Your task to perform on an android device: When is my next appointment? Image 0: 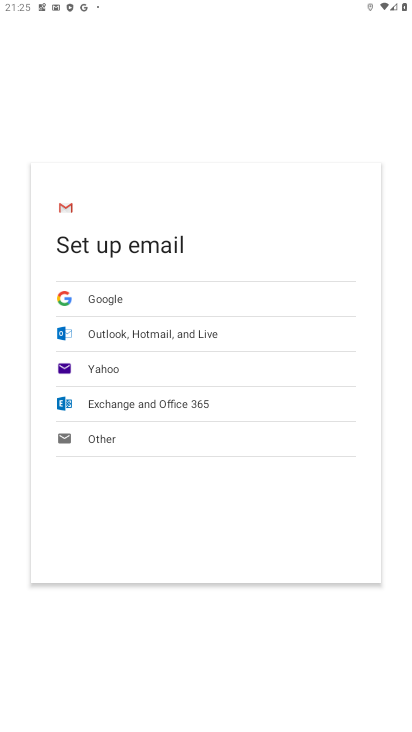
Step 0: press home button
Your task to perform on an android device: When is my next appointment? Image 1: 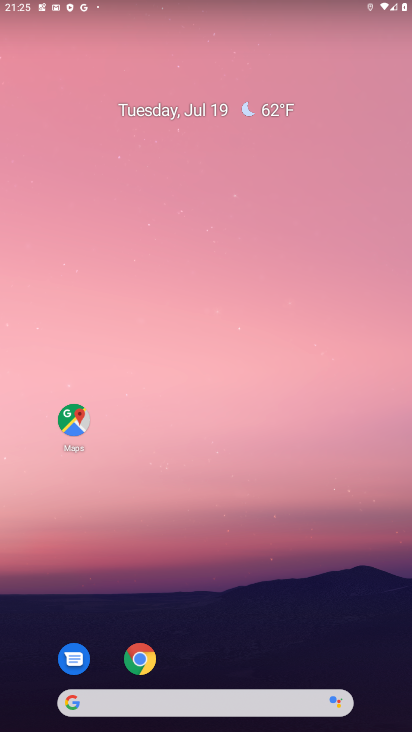
Step 1: drag from (254, 654) to (252, 71)
Your task to perform on an android device: When is my next appointment? Image 2: 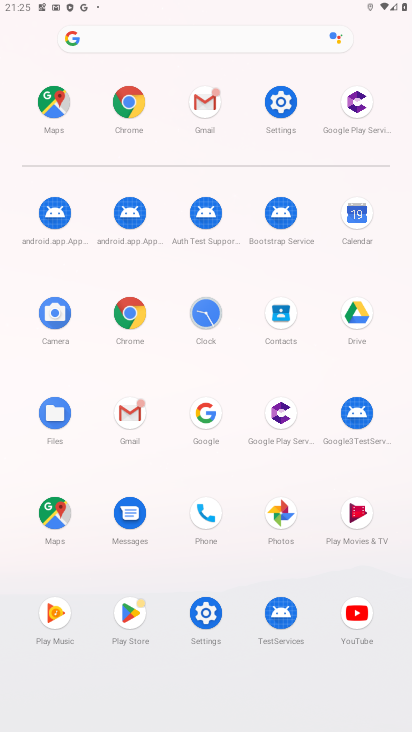
Step 2: click (350, 204)
Your task to perform on an android device: When is my next appointment? Image 3: 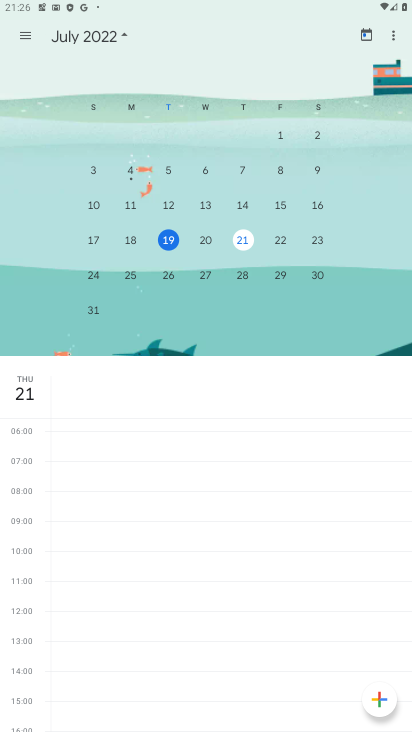
Step 3: click (169, 248)
Your task to perform on an android device: When is my next appointment? Image 4: 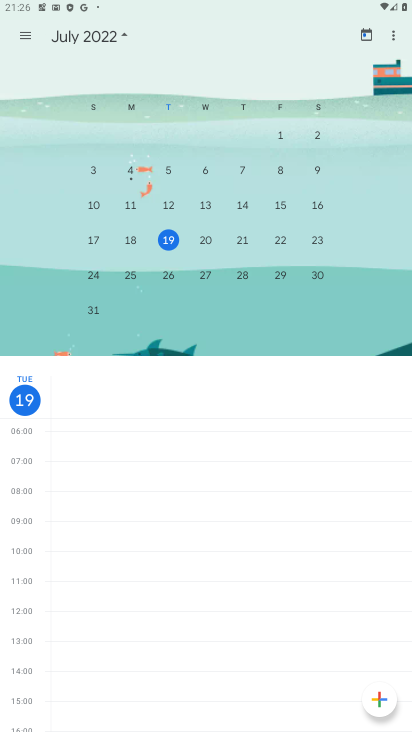
Step 4: click (116, 43)
Your task to perform on an android device: When is my next appointment? Image 5: 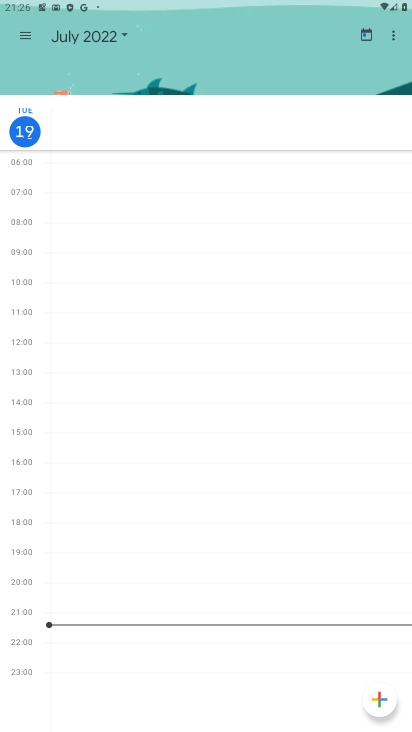
Step 5: click (124, 30)
Your task to perform on an android device: When is my next appointment? Image 6: 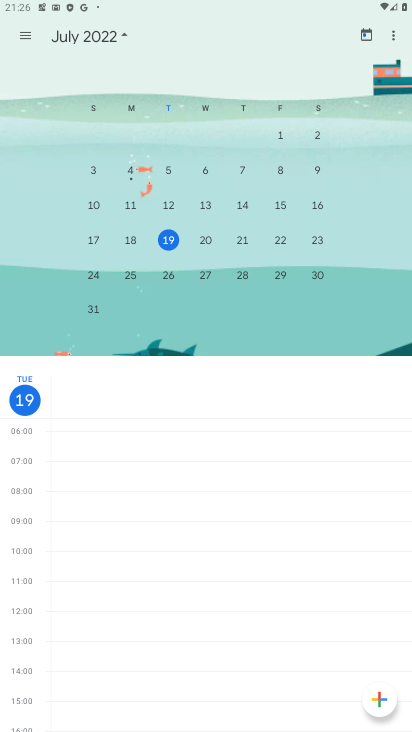
Step 6: click (205, 240)
Your task to perform on an android device: When is my next appointment? Image 7: 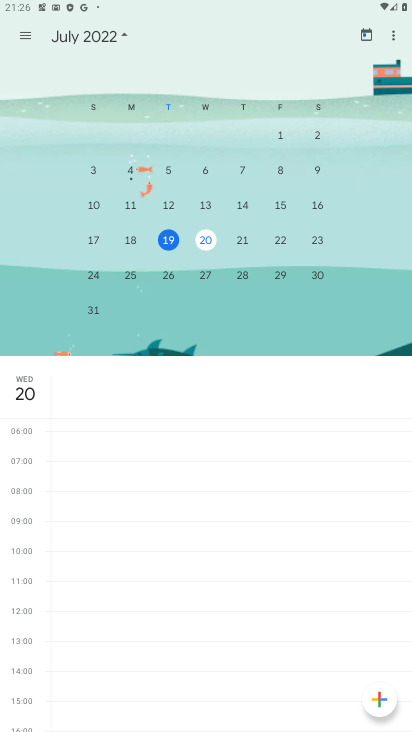
Step 7: click (144, 34)
Your task to perform on an android device: When is my next appointment? Image 8: 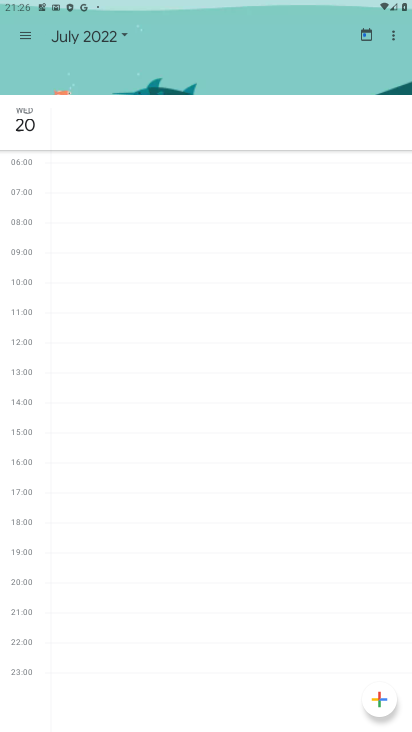
Step 8: task complete